Your task to perform on an android device: What's the weather? Image 0: 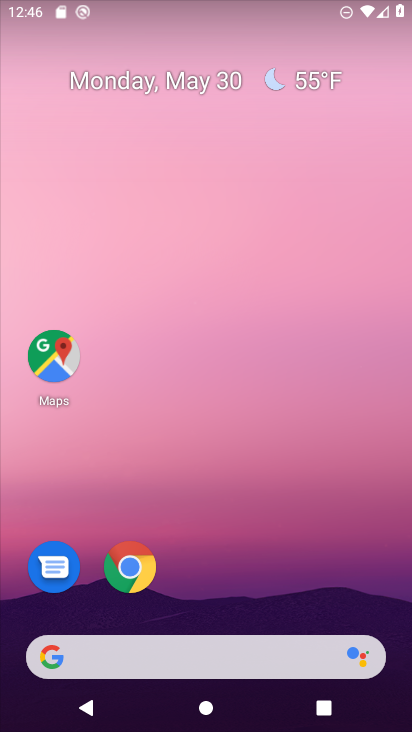
Step 0: press home button
Your task to perform on an android device: What's the weather? Image 1: 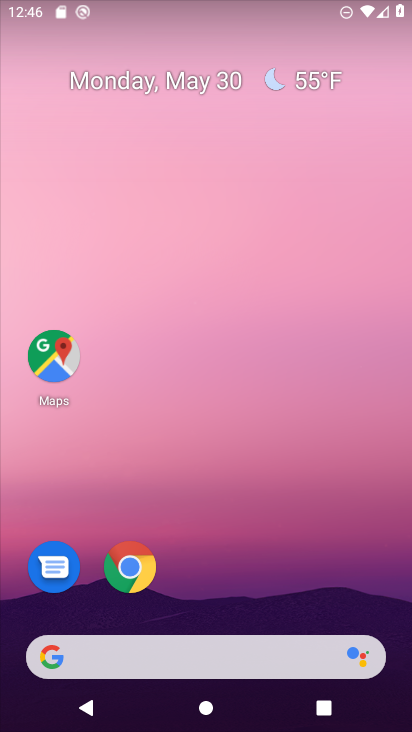
Step 1: click (304, 73)
Your task to perform on an android device: What's the weather? Image 2: 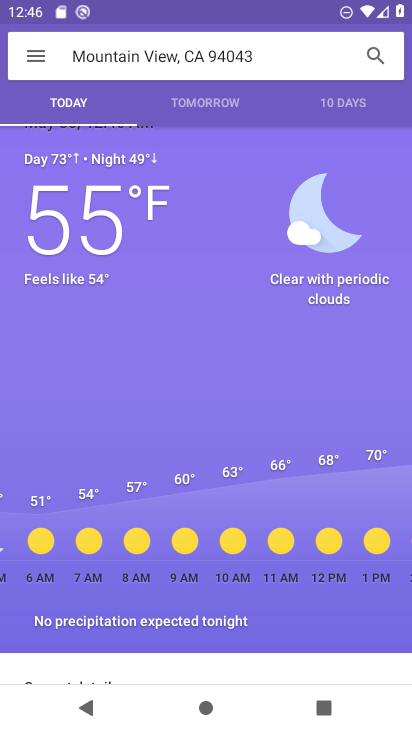
Step 2: task complete